Your task to perform on an android device: Open my contact list Image 0: 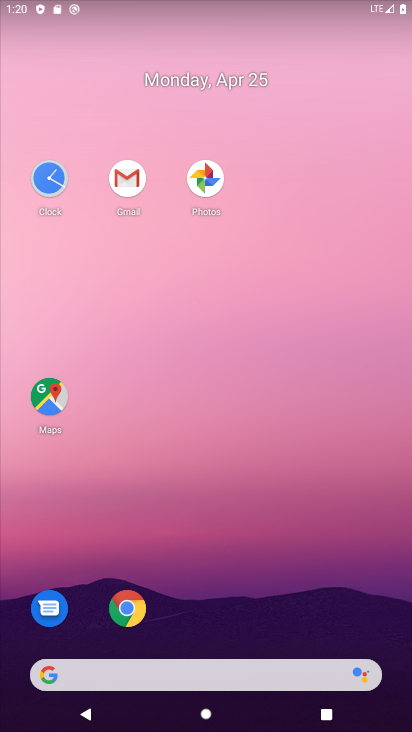
Step 0: drag from (234, 610) to (330, 106)
Your task to perform on an android device: Open my contact list Image 1: 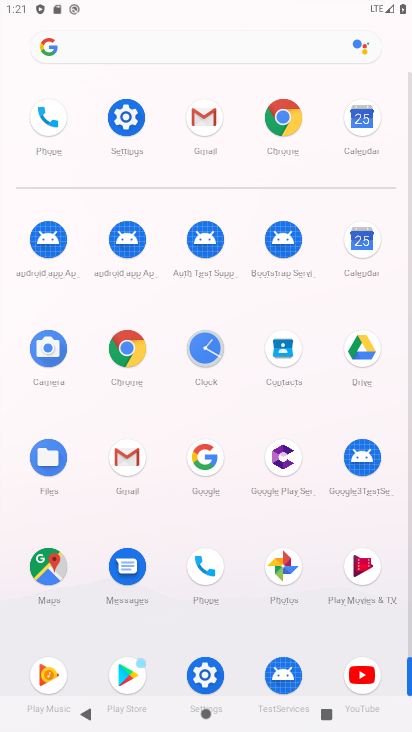
Step 1: click (285, 356)
Your task to perform on an android device: Open my contact list Image 2: 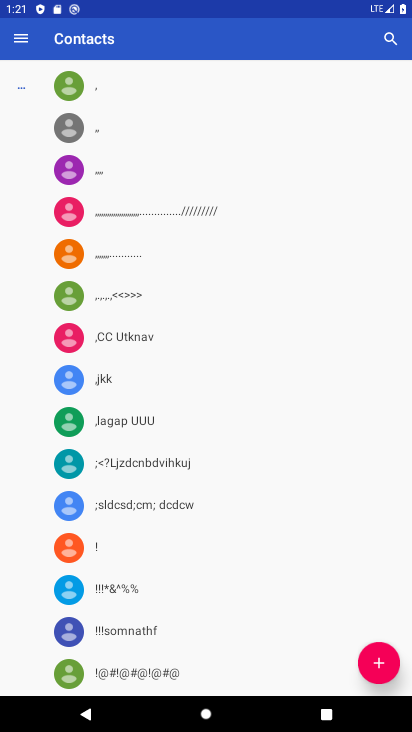
Step 2: task complete